Your task to perform on an android device: open sync settings in chrome Image 0: 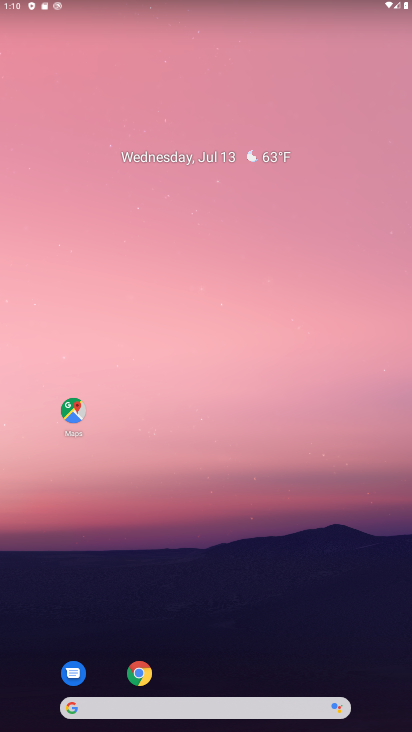
Step 0: drag from (246, 653) to (202, 336)
Your task to perform on an android device: open sync settings in chrome Image 1: 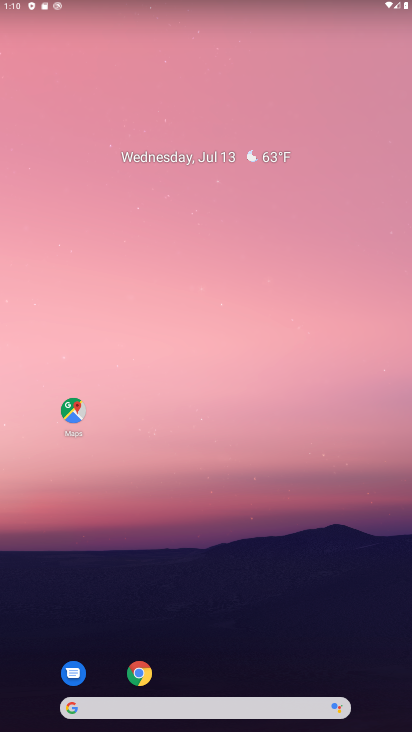
Step 1: drag from (189, 668) to (176, 370)
Your task to perform on an android device: open sync settings in chrome Image 2: 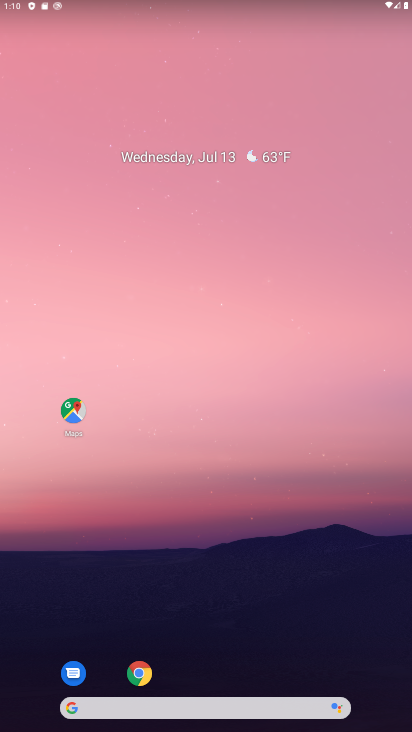
Step 2: drag from (201, 683) to (207, 183)
Your task to perform on an android device: open sync settings in chrome Image 3: 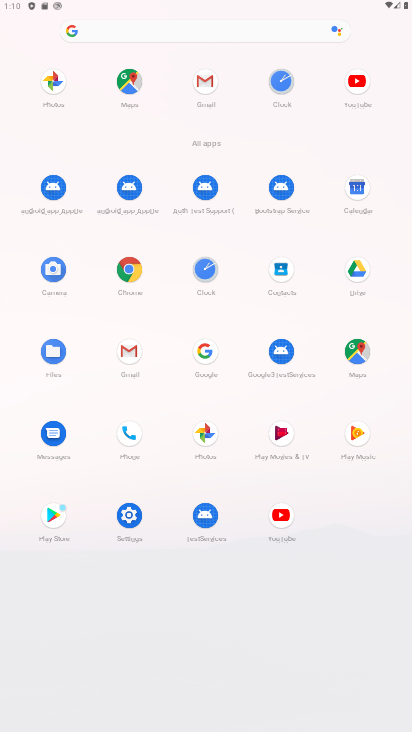
Step 3: click (124, 273)
Your task to perform on an android device: open sync settings in chrome Image 4: 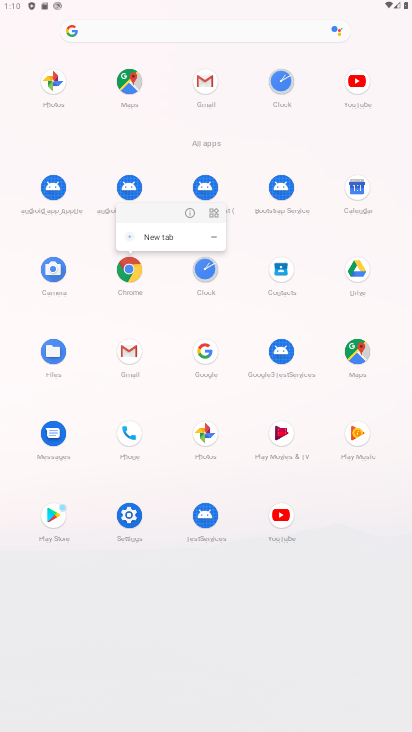
Step 4: click (123, 277)
Your task to perform on an android device: open sync settings in chrome Image 5: 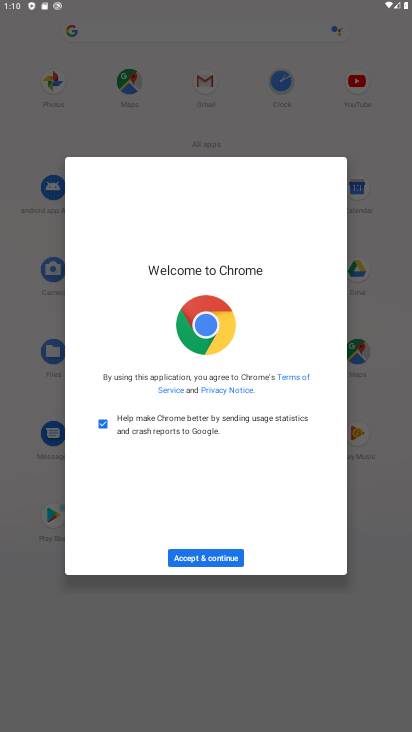
Step 5: click (206, 558)
Your task to perform on an android device: open sync settings in chrome Image 6: 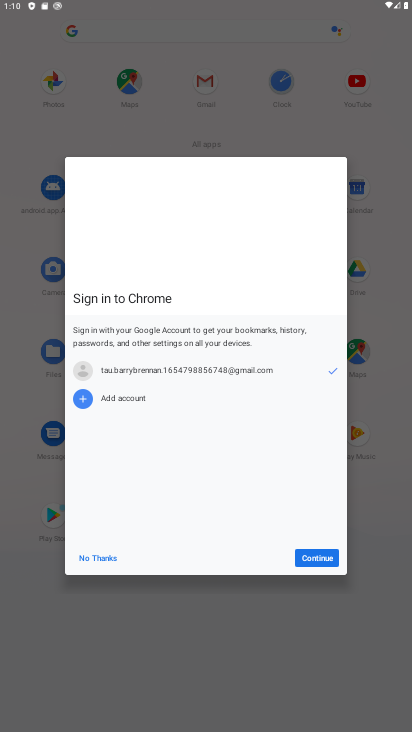
Step 6: click (303, 545)
Your task to perform on an android device: open sync settings in chrome Image 7: 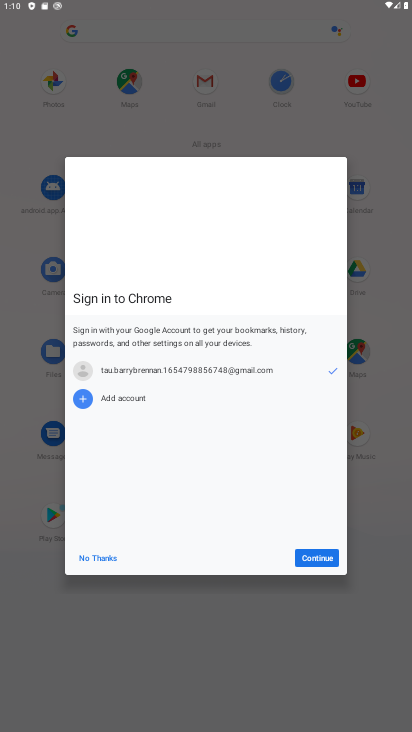
Step 7: click (311, 558)
Your task to perform on an android device: open sync settings in chrome Image 8: 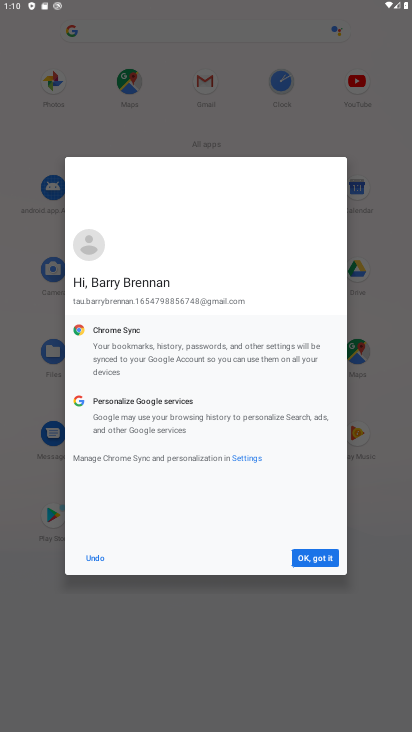
Step 8: click (311, 558)
Your task to perform on an android device: open sync settings in chrome Image 9: 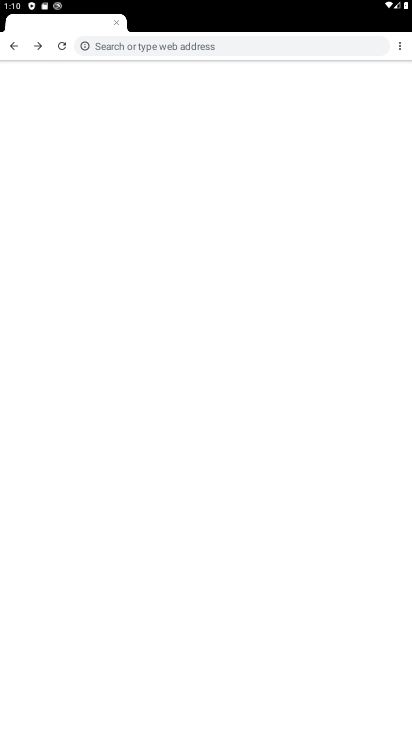
Step 9: click (400, 53)
Your task to perform on an android device: open sync settings in chrome Image 10: 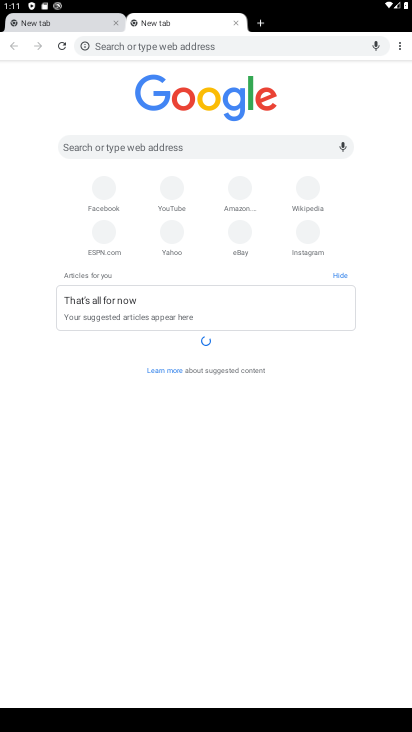
Step 10: click (393, 38)
Your task to perform on an android device: open sync settings in chrome Image 11: 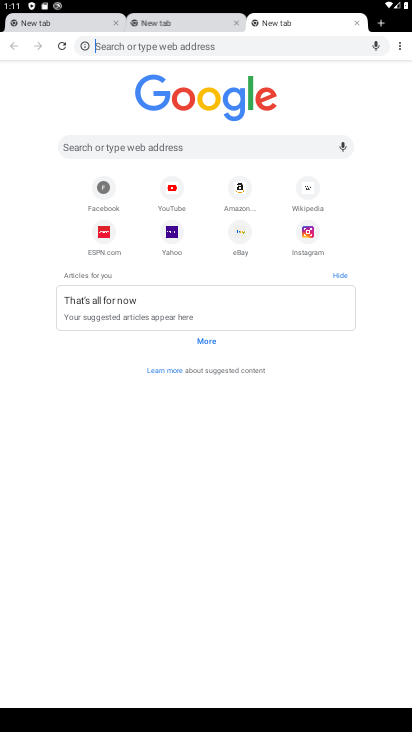
Step 11: click (396, 42)
Your task to perform on an android device: open sync settings in chrome Image 12: 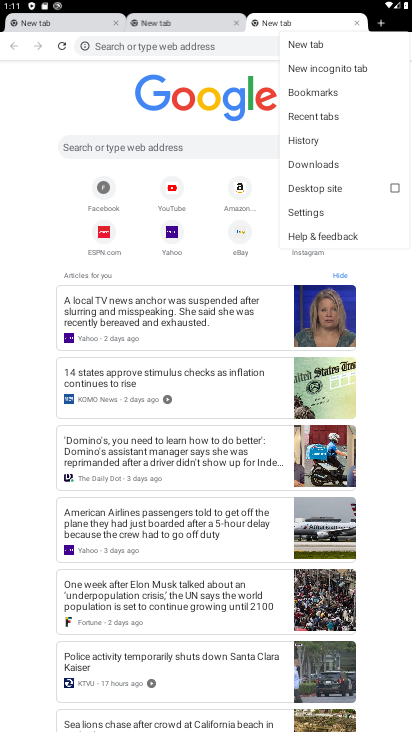
Step 12: click (317, 214)
Your task to perform on an android device: open sync settings in chrome Image 13: 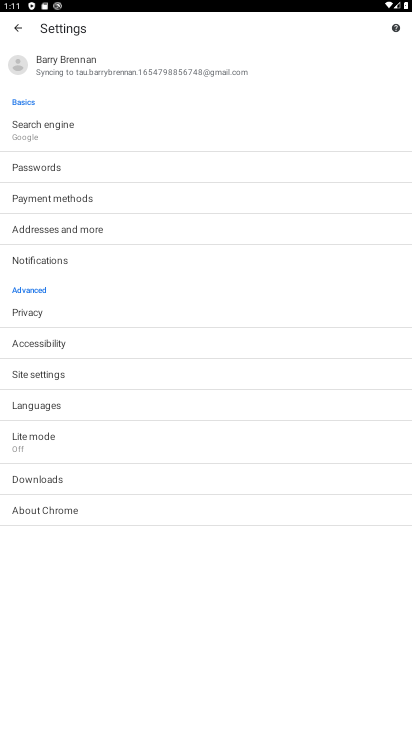
Step 13: click (99, 78)
Your task to perform on an android device: open sync settings in chrome Image 14: 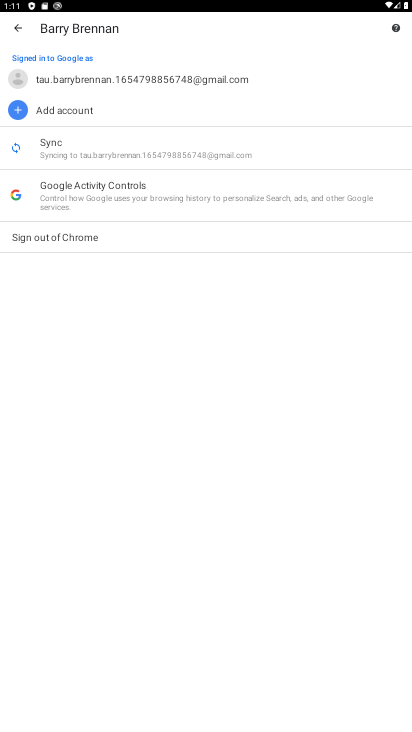
Step 14: click (78, 148)
Your task to perform on an android device: open sync settings in chrome Image 15: 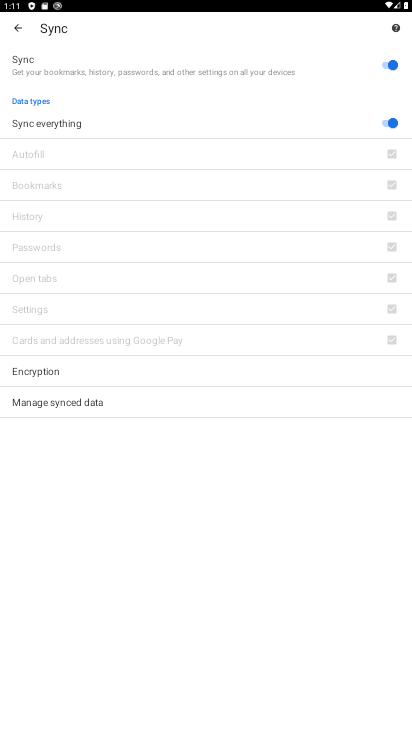
Step 15: task complete